Your task to perform on an android device: Open the web browser Image 0: 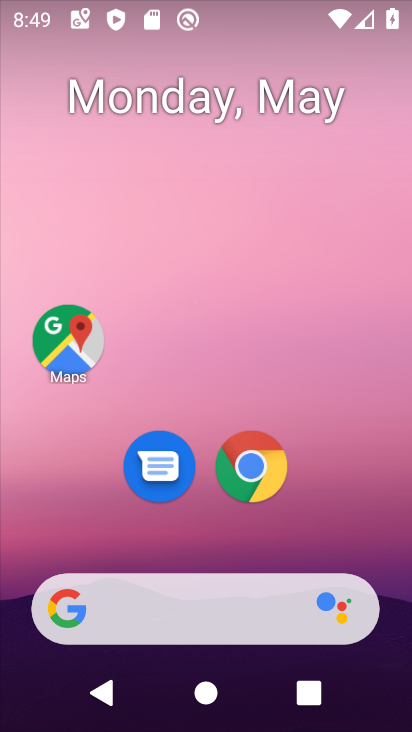
Step 0: click (205, 595)
Your task to perform on an android device: Open the web browser Image 1: 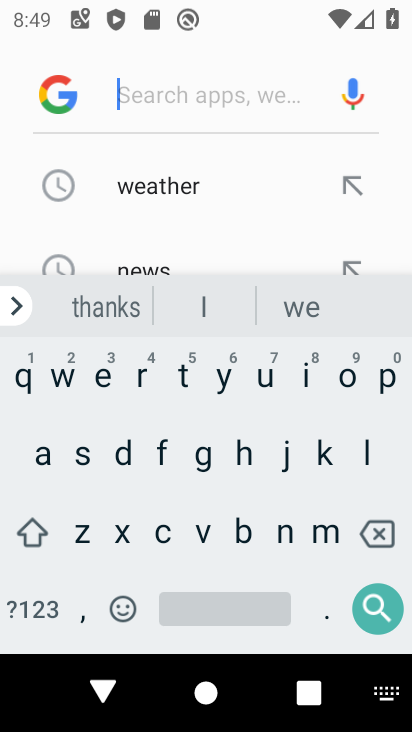
Step 1: task complete